Your task to perform on an android device: Search for seafood restaurants on Google Maps Image 0: 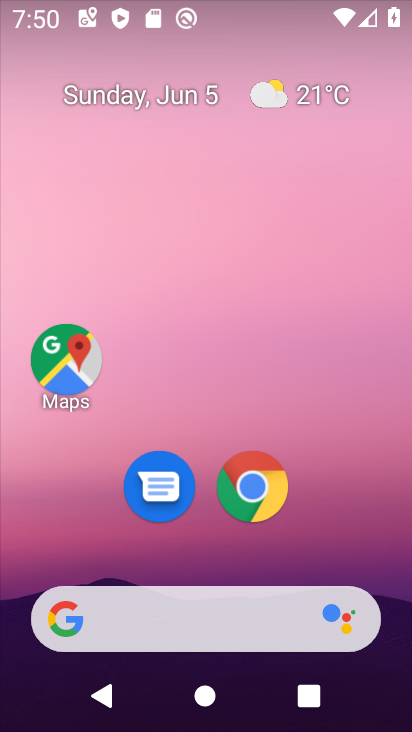
Step 0: click (51, 359)
Your task to perform on an android device: Search for seafood restaurants on Google Maps Image 1: 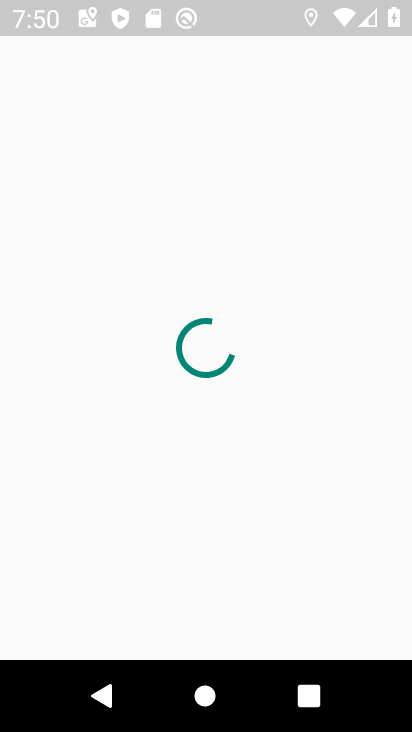
Step 1: click (299, 61)
Your task to perform on an android device: Search for seafood restaurants on Google Maps Image 2: 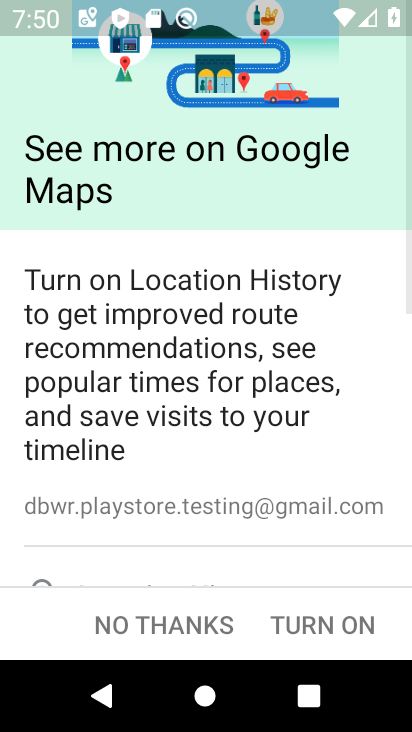
Step 2: click (190, 638)
Your task to perform on an android device: Search for seafood restaurants on Google Maps Image 3: 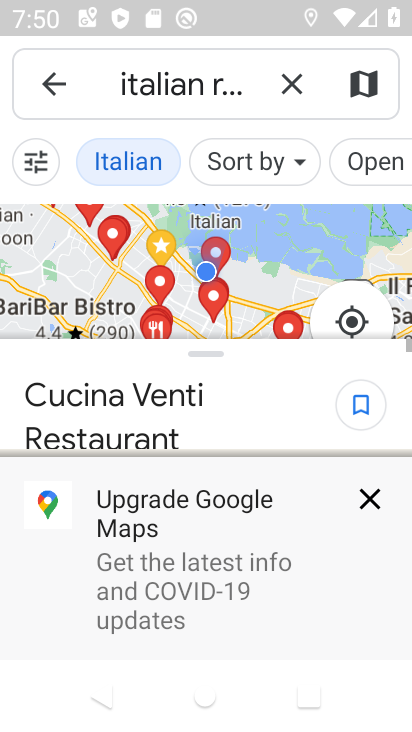
Step 3: click (364, 502)
Your task to perform on an android device: Search for seafood restaurants on Google Maps Image 4: 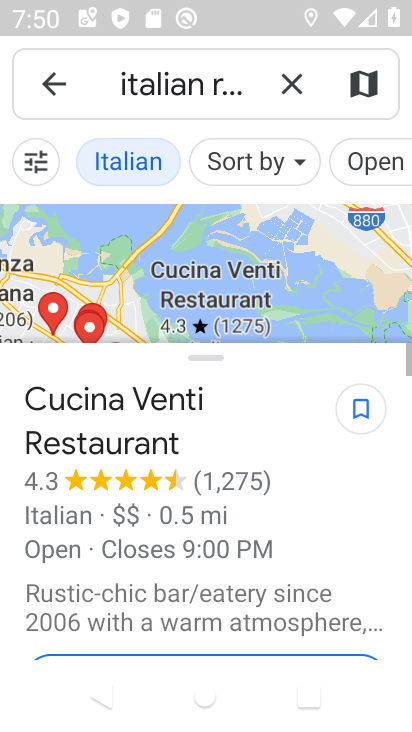
Step 4: click (284, 79)
Your task to perform on an android device: Search for seafood restaurants on Google Maps Image 5: 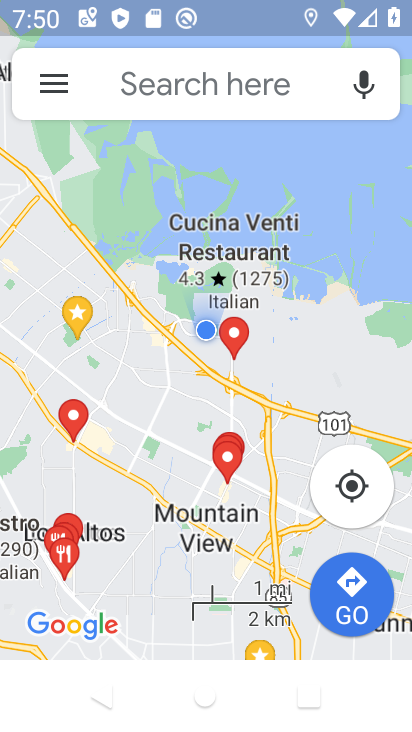
Step 5: click (158, 84)
Your task to perform on an android device: Search for seafood restaurants on Google Maps Image 6: 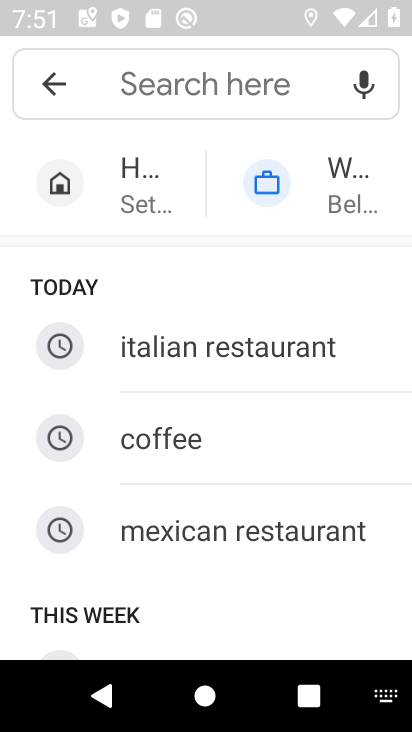
Step 6: drag from (211, 544) to (272, 161)
Your task to perform on an android device: Search for seafood restaurants on Google Maps Image 7: 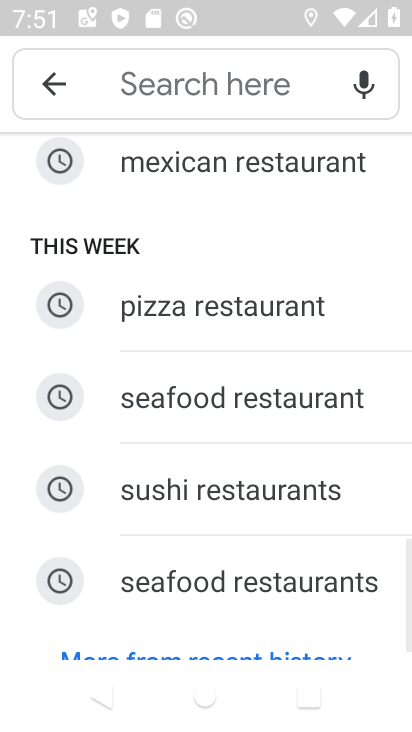
Step 7: click (179, 387)
Your task to perform on an android device: Search for seafood restaurants on Google Maps Image 8: 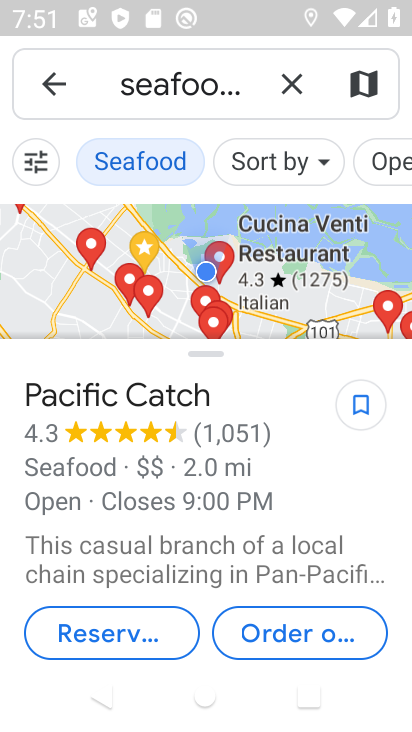
Step 8: task complete